Your task to perform on an android device: What is the news today? Image 0: 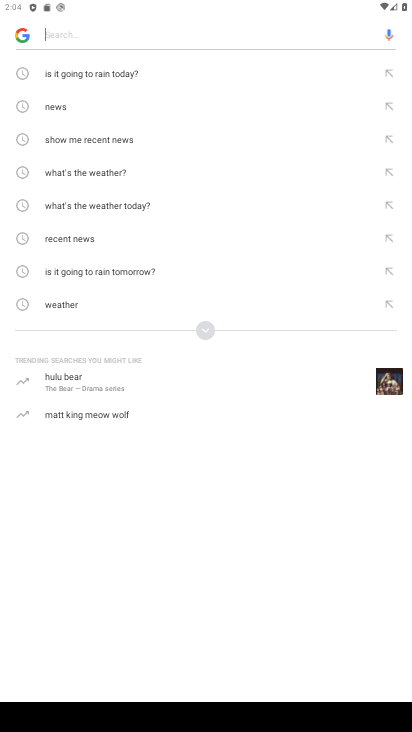
Step 0: press home button
Your task to perform on an android device: What is the news today? Image 1: 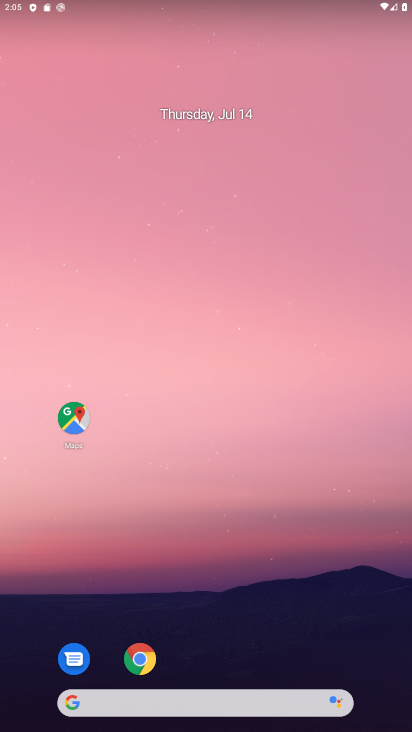
Step 1: click (73, 705)
Your task to perform on an android device: What is the news today? Image 2: 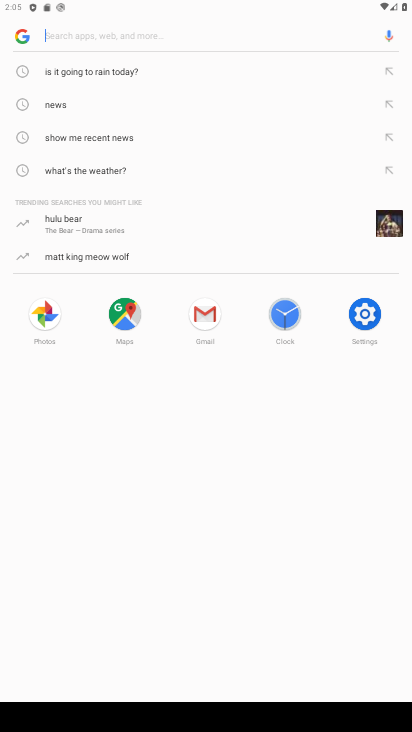
Step 2: type "news today"
Your task to perform on an android device: What is the news today? Image 3: 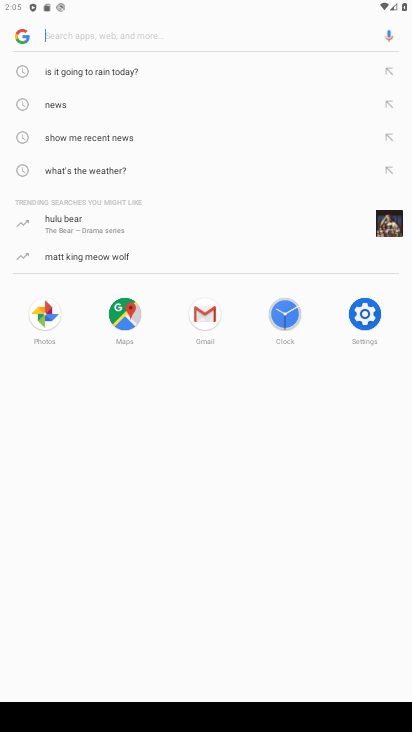
Step 3: click (56, 39)
Your task to perform on an android device: What is the news today? Image 4: 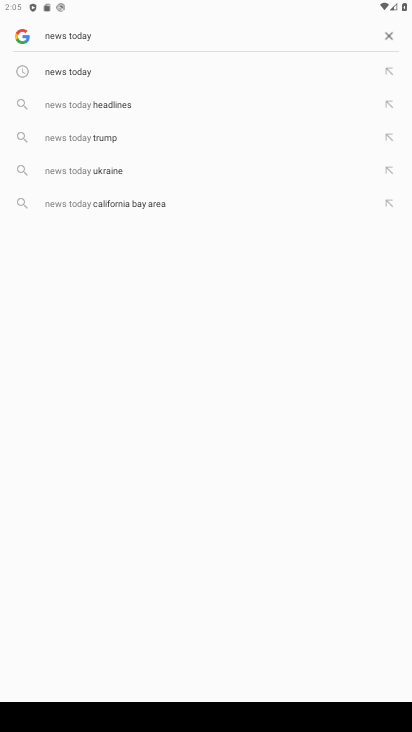
Step 4: press enter
Your task to perform on an android device: What is the news today? Image 5: 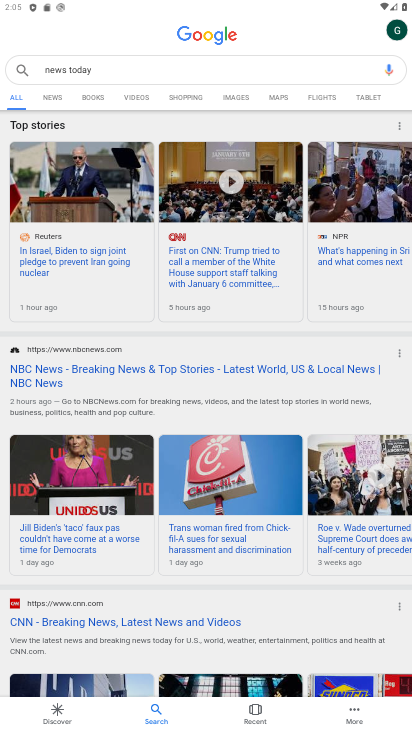
Step 5: task complete